Your task to perform on an android device: Search for usb-a to usb-b on target, select the first entry, add it to the cart, then select checkout. Image 0: 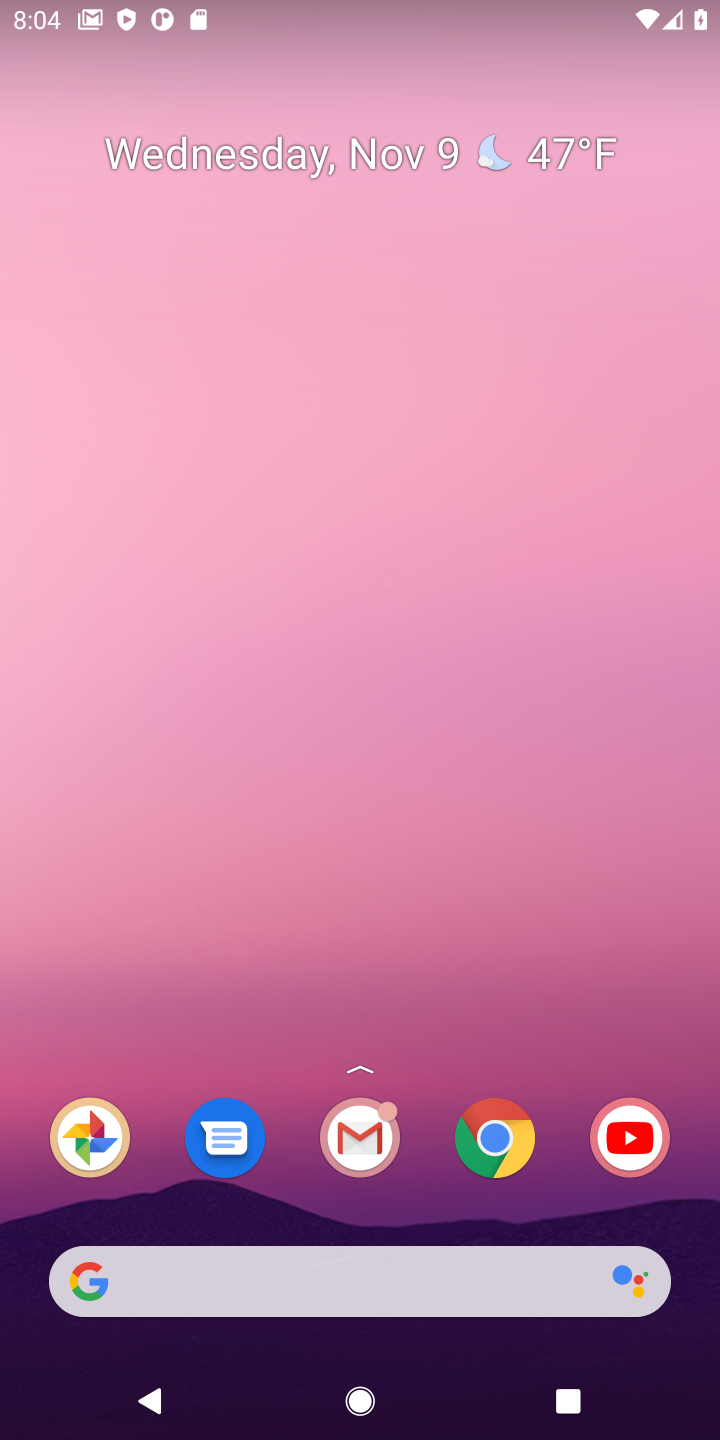
Step 0: drag from (426, 1217) to (498, 132)
Your task to perform on an android device: Search for usb-a to usb-b on target, select the first entry, add it to the cart, then select checkout. Image 1: 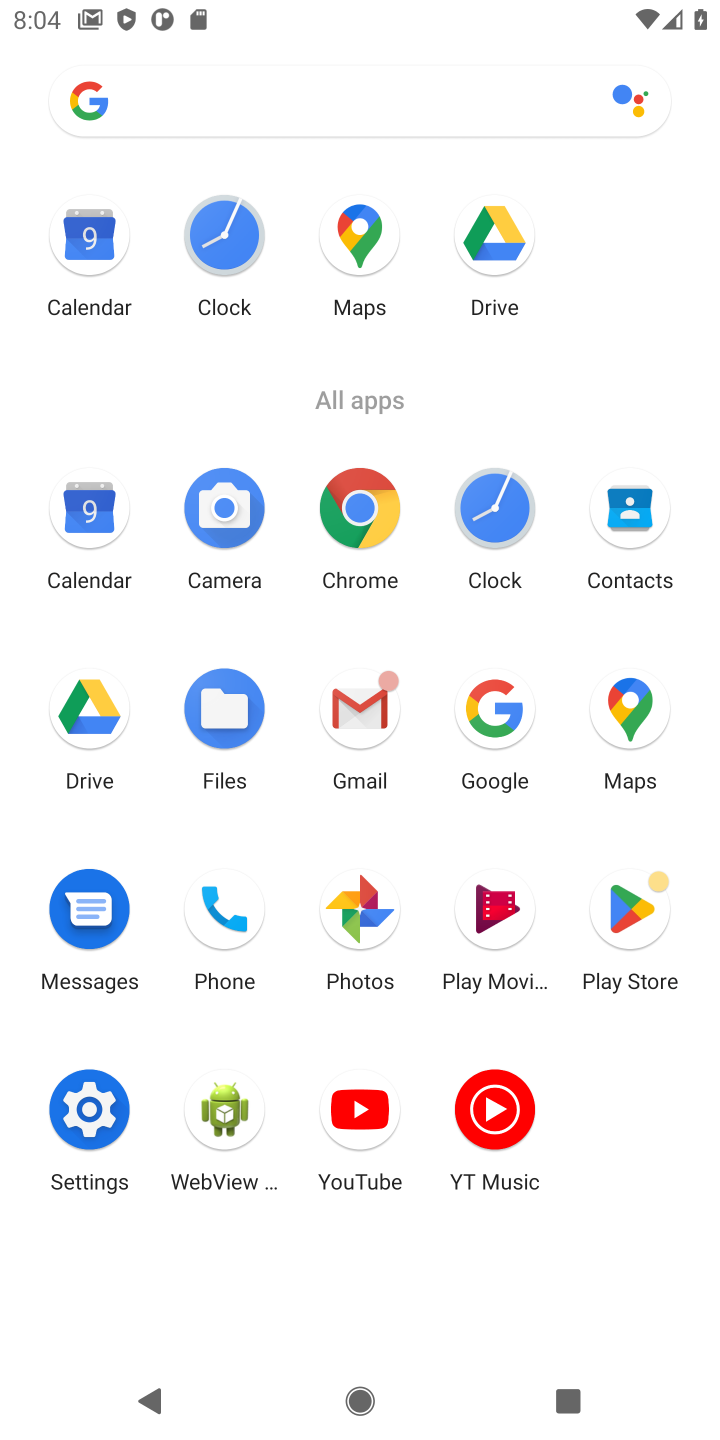
Step 1: click (378, 516)
Your task to perform on an android device: Search for usb-a to usb-b on target, select the first entry, add it to the cart, then select checkout. Image 2: 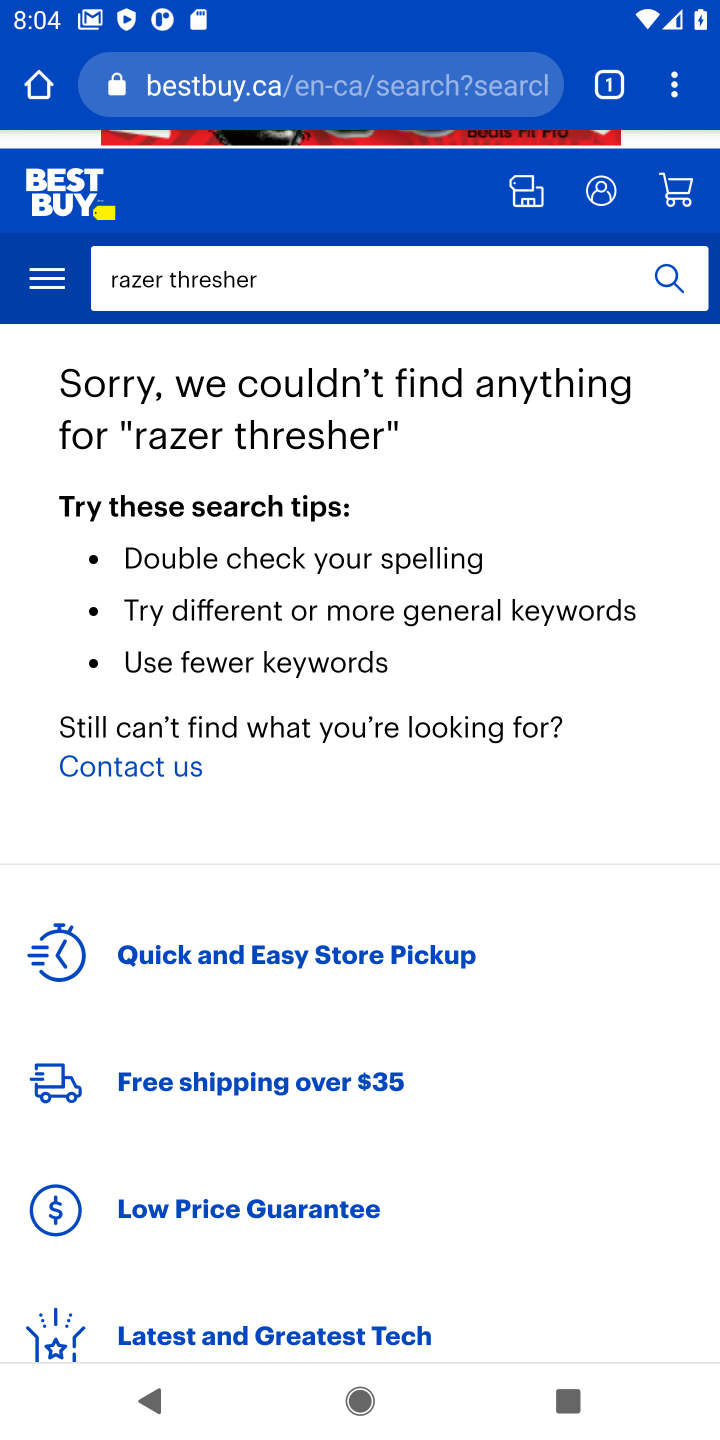
Step 2: click (457, 81)
Your task to perform on an android device: Search for usb-a to usb-b on target, select the first entry, add it to the cart, then select checkout. Image 3: 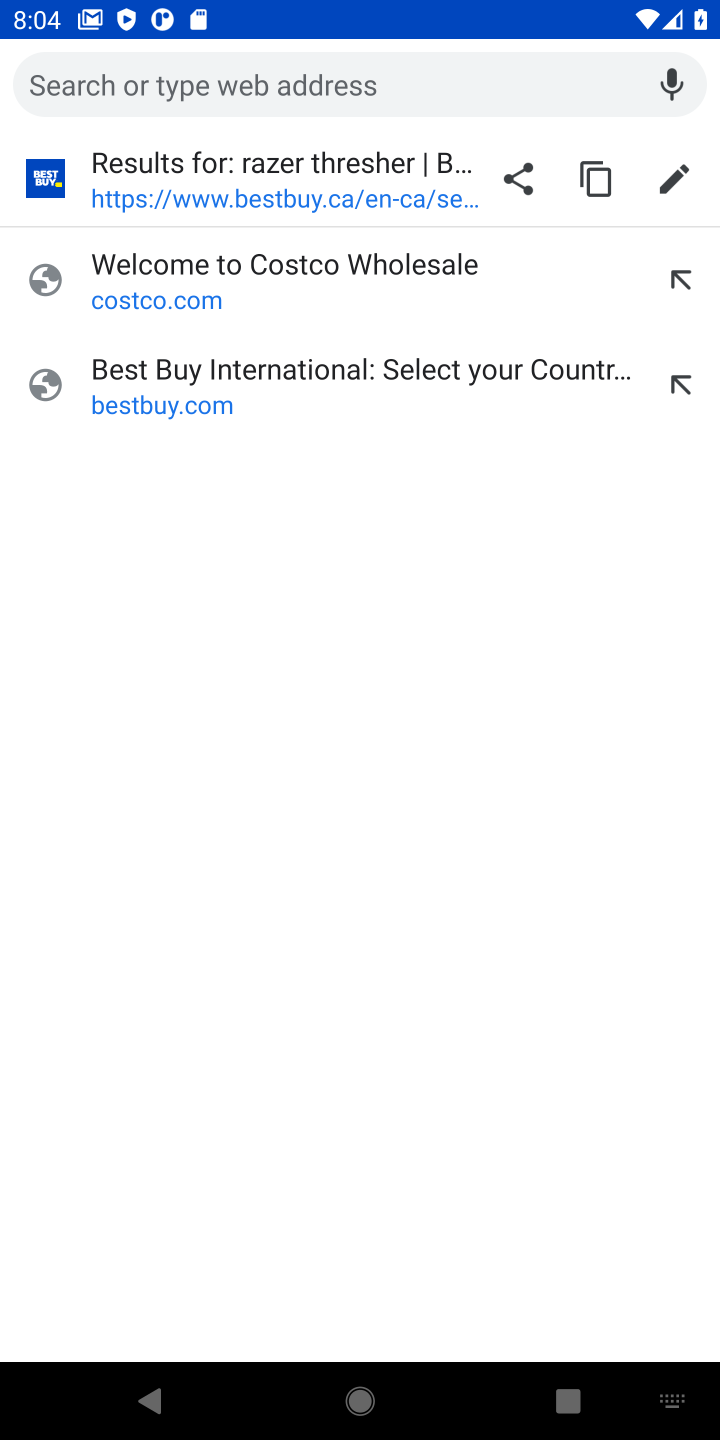
Step 3: type "target.com"
Your task to perform on an android device: Search for usb-a to usb-b on target, select the first entry, add it to the cart, then select checkout. Image 4: 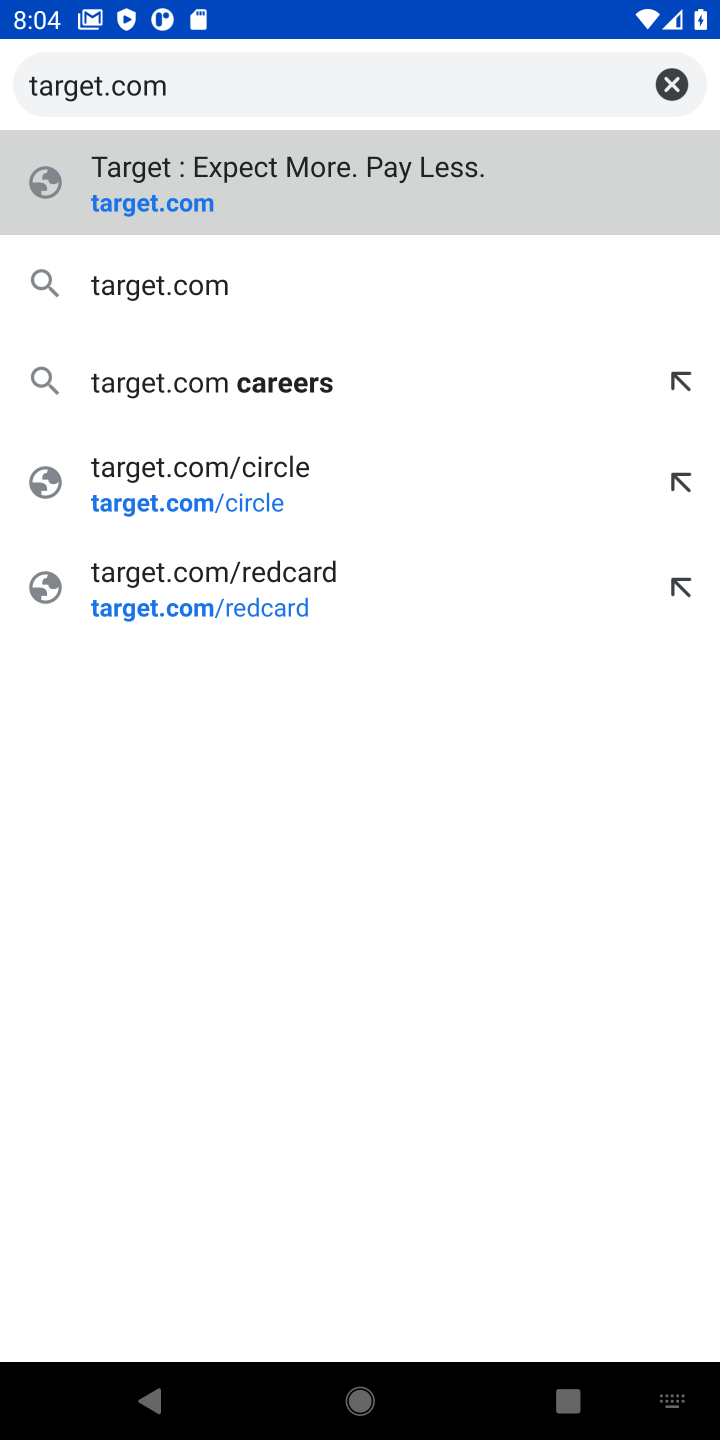
Step 4: press enter
Your task to perform on an android device: Search for usb-a to usb-b on target, select the first entry, add it to the cart, then select checkout. Image 5: 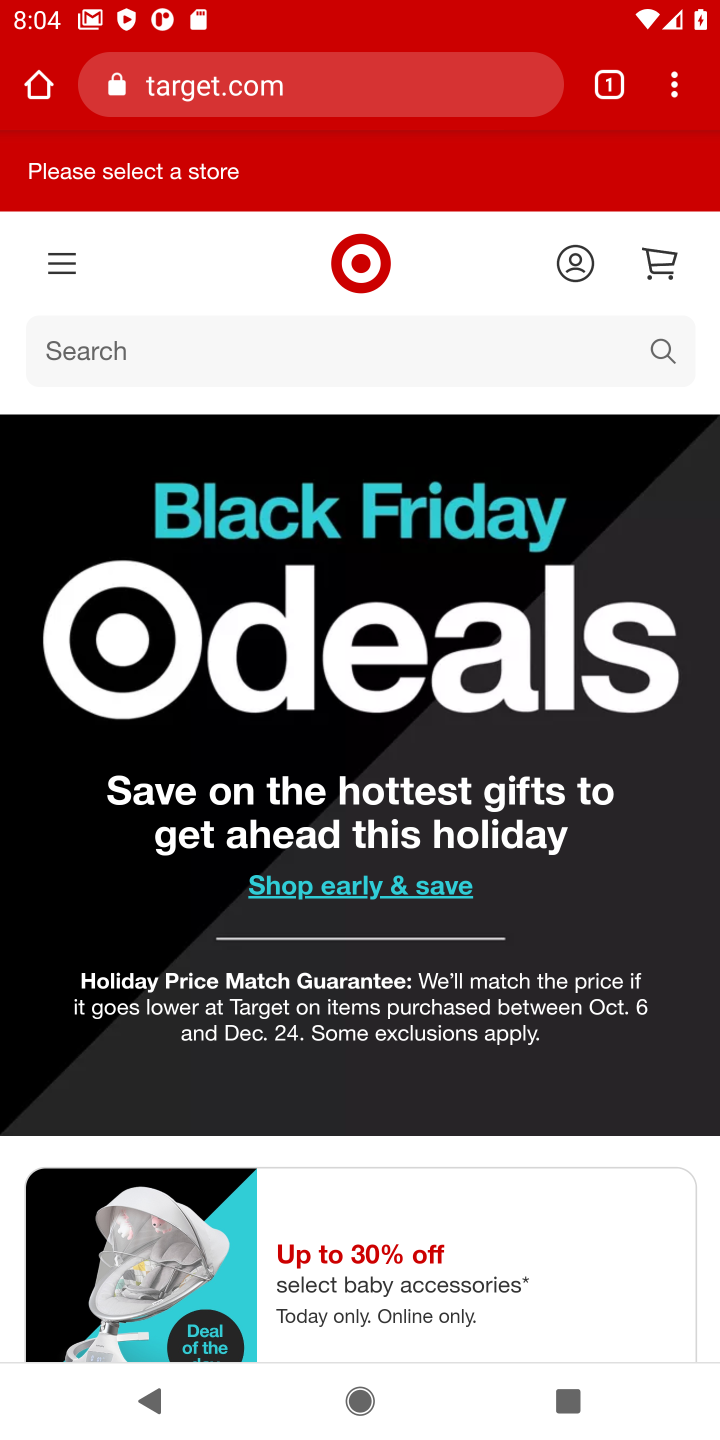
Step 5: click (269, 359)
Your task to perform on an android device: Search for usb-a to usb-b on target, select the first entry, add it to the cart, then select checkout. Image 6: 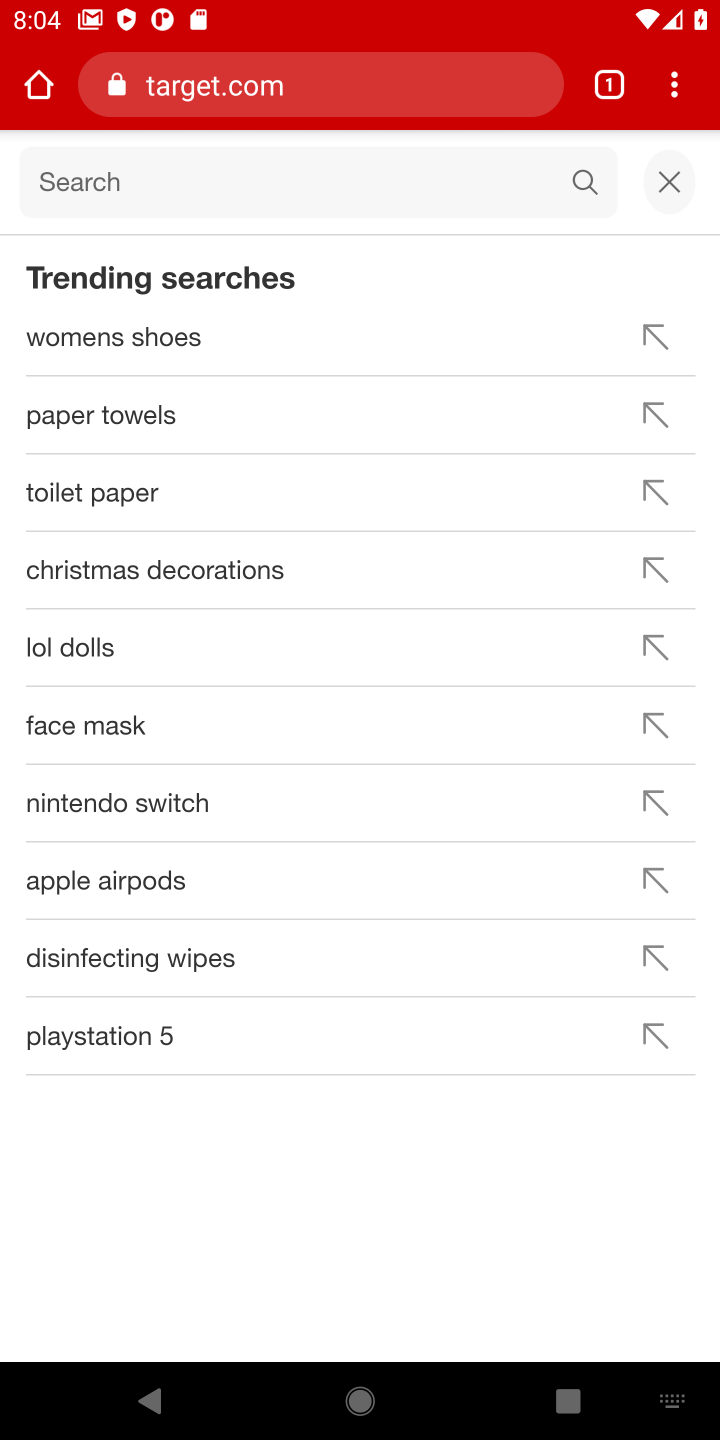
Step 6: type "usb-a to usb-b"
Your task to perform on an android device: Search for usb-a to usb-b on target, select the first entry, add it to the cart, then select checkout. Image 7: 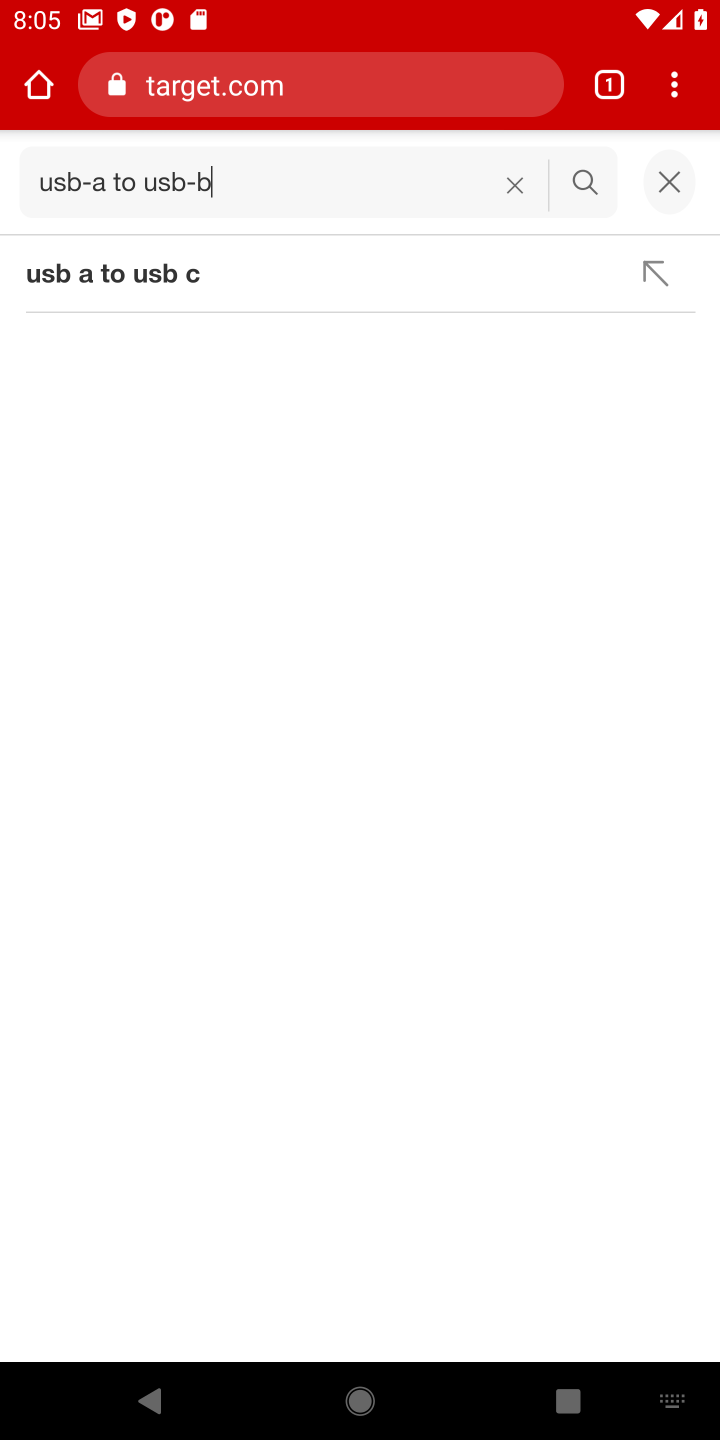
Step 7: press enter
Your task to perform on an android device: Search for usb-a to usb-b on target, select the first entry, add it to the cart, then select checkout. Image 8: 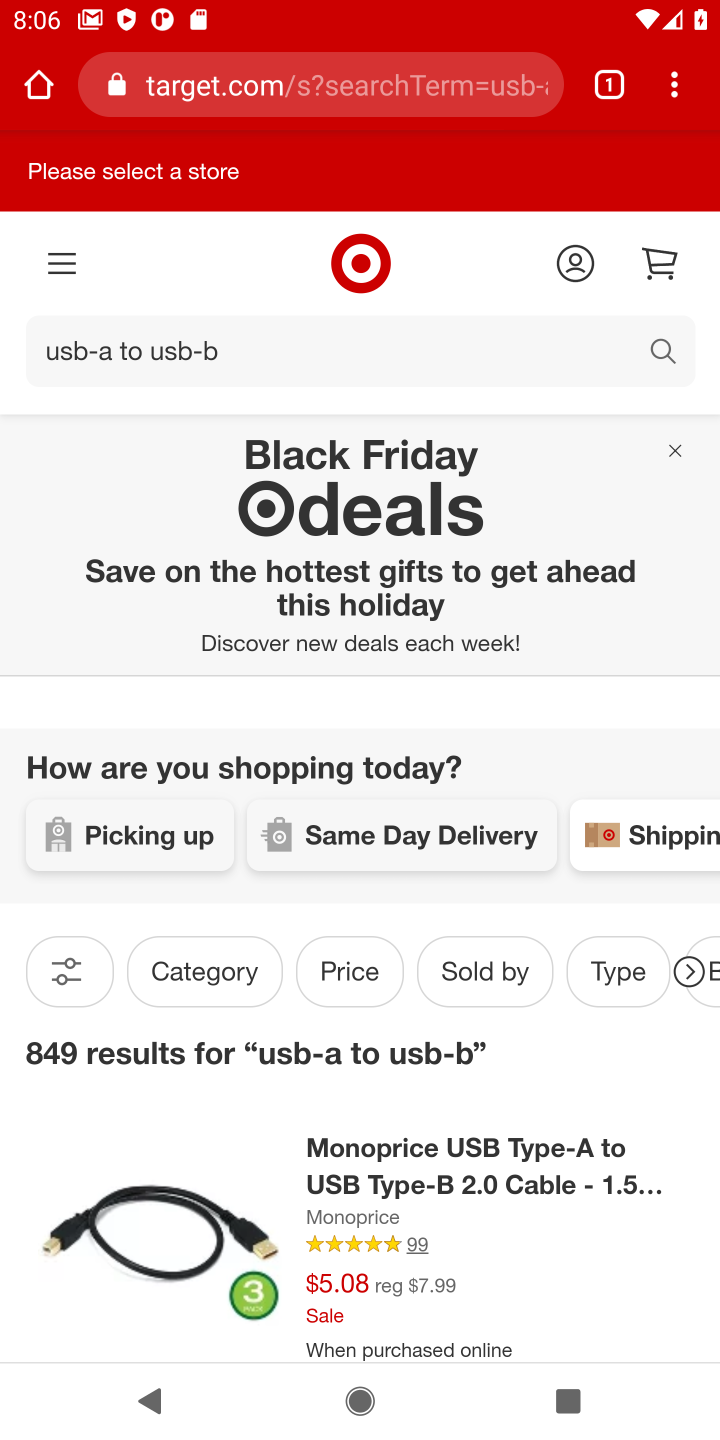
Step 8: drag from (533, 1201) to (517, 579)
Your task to perform on an android device: Search for usb-a to usb-b on target, select the first entry, add it to the cart, then select checkout. Image 9: 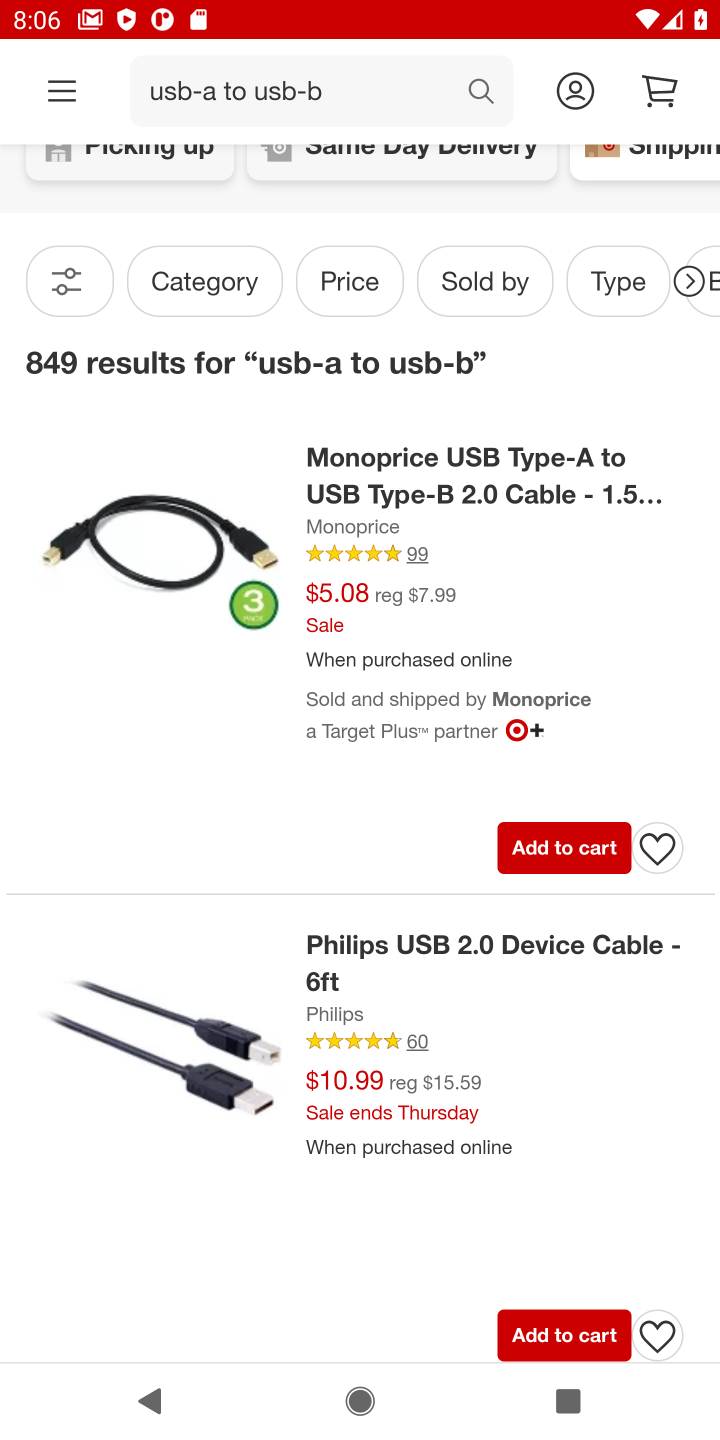
Step 9: click (545, 863)
Your task to perform on an android device: Search for usb-a to usb-b on target, select the first entry, add it to the cart, then select checkout. Image 10: 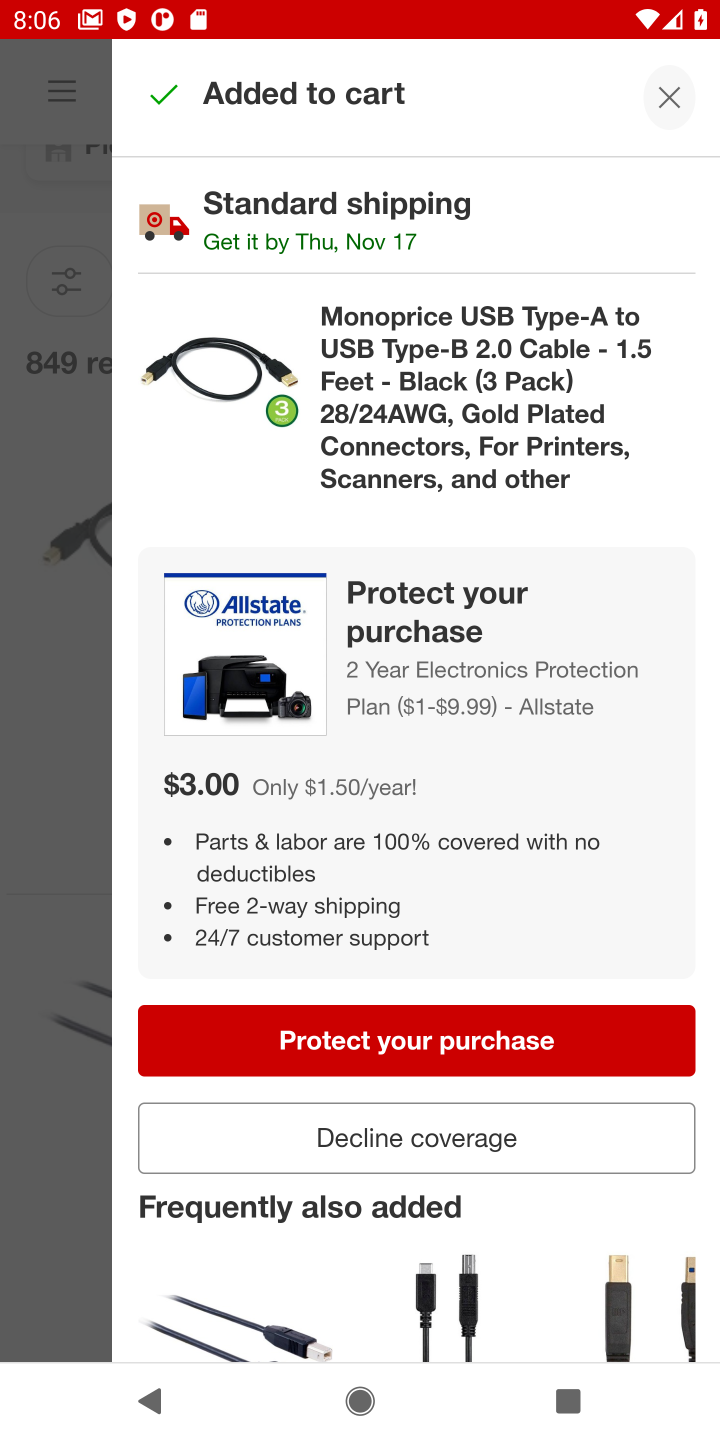
Step 10: click (677, 83)
Your task to perform on an android device: Search for usb-a to usb-b on target, select the first entry, add it to the cart, then select checkout. Image 11: 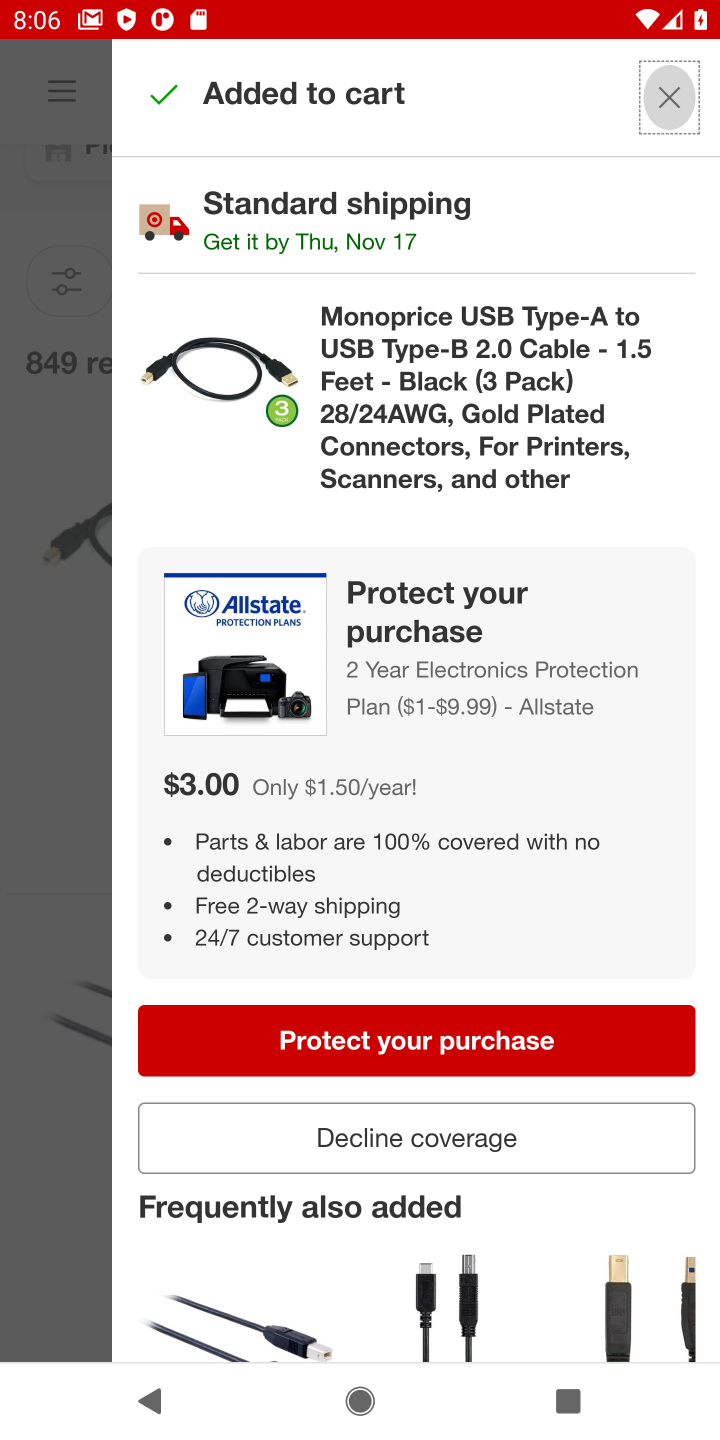
Step 11: click (693, 107)
Your task to perform on an android device: Search for usb-a to usb-b on target, select the first entry, add it to the cart, then select checkout. Image 12: 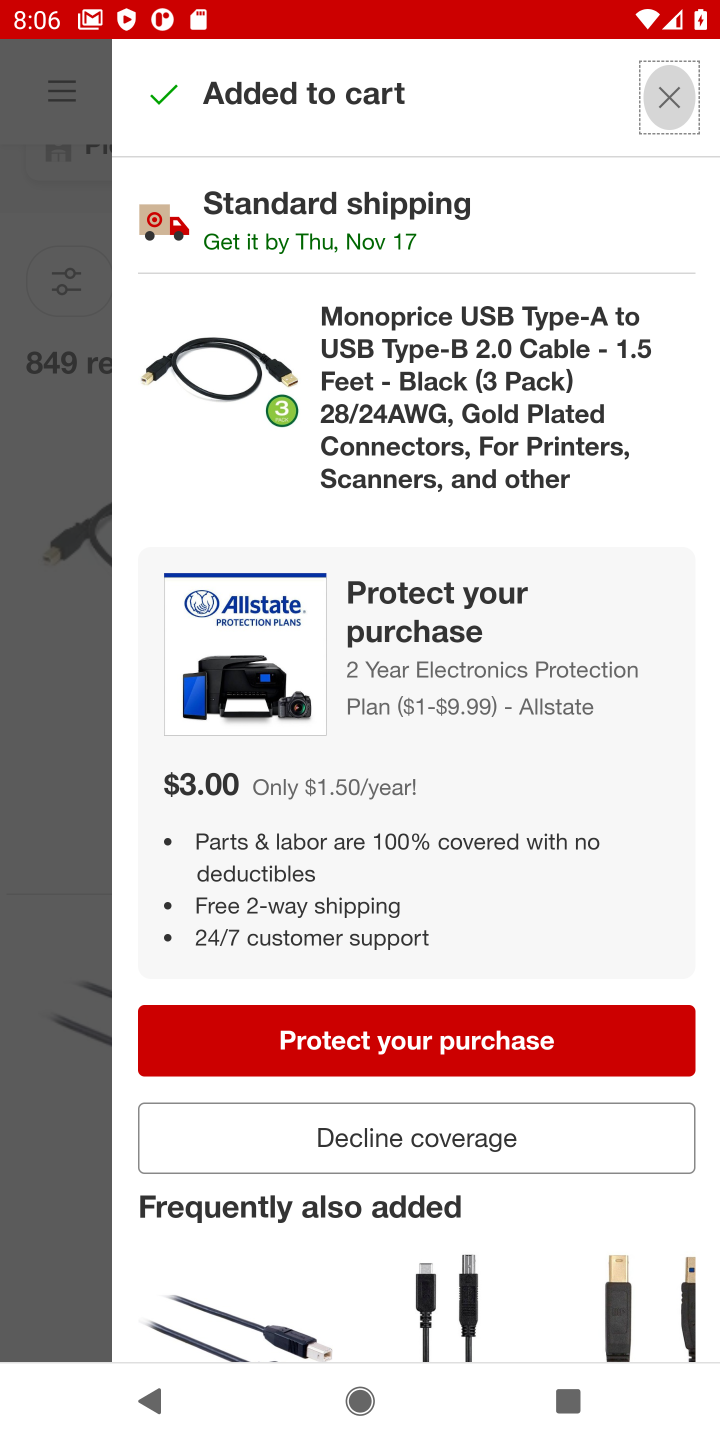
Step 12: click (666, 87)
Your task to perform on an android device: Search for usb-a to usb-b on target, select the first entry, add it to the cart, then select checkout. Image 13: 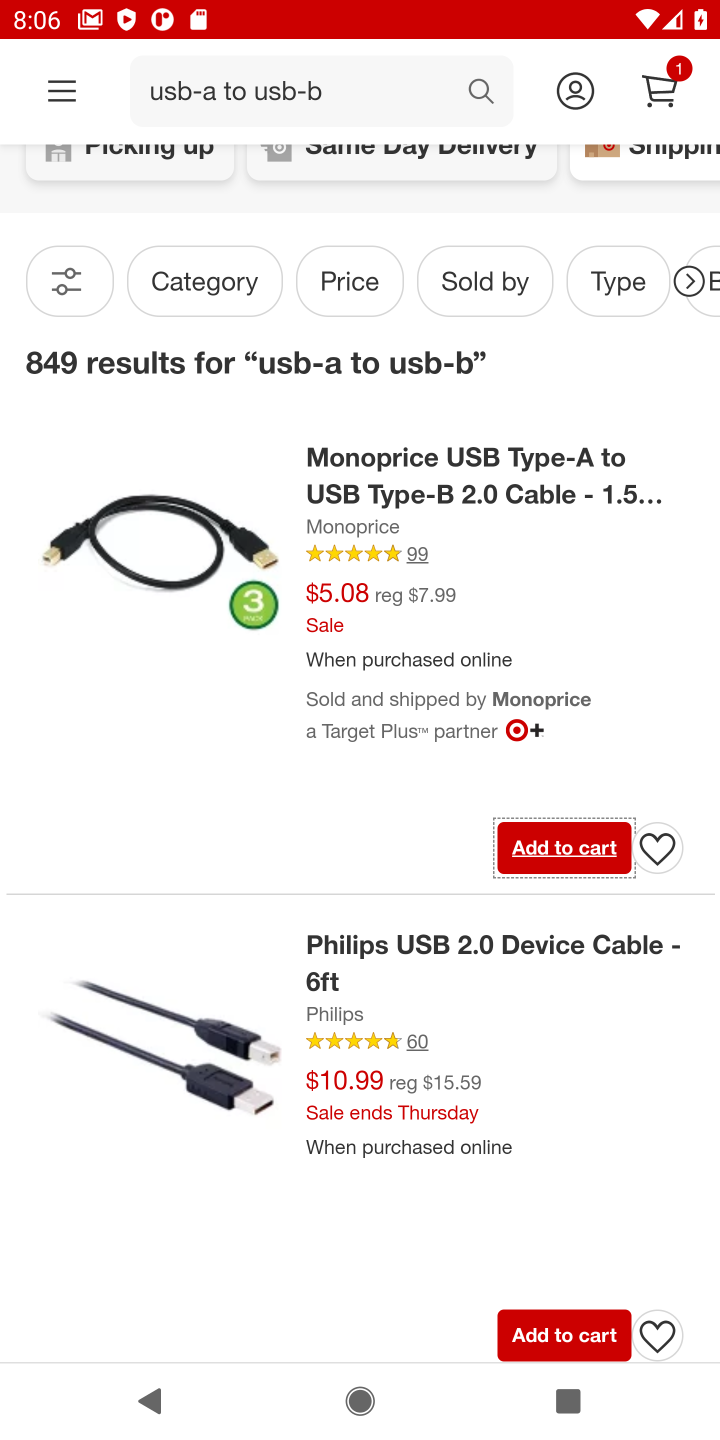
Step 13: click (666, 87)
Your task to perform on an android device: Search for usb-a to usb-b on target, select the first entry, add it to the cart, then select checkout. Image 14: 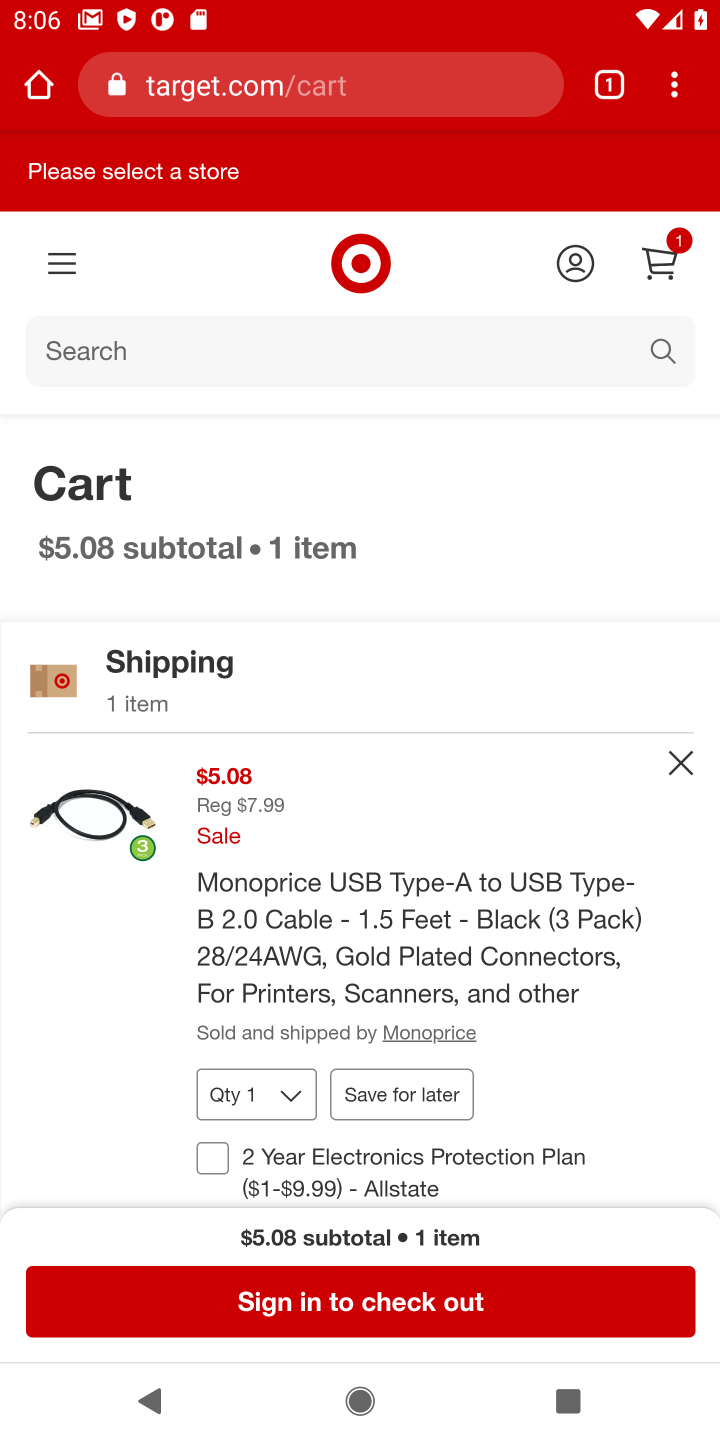
Step 14: click (484, 1279)
Your task to perform on an android device: Search for usb-a to usb-b on target, select the first entry, add it to the cart, then select checkout. Image 15: 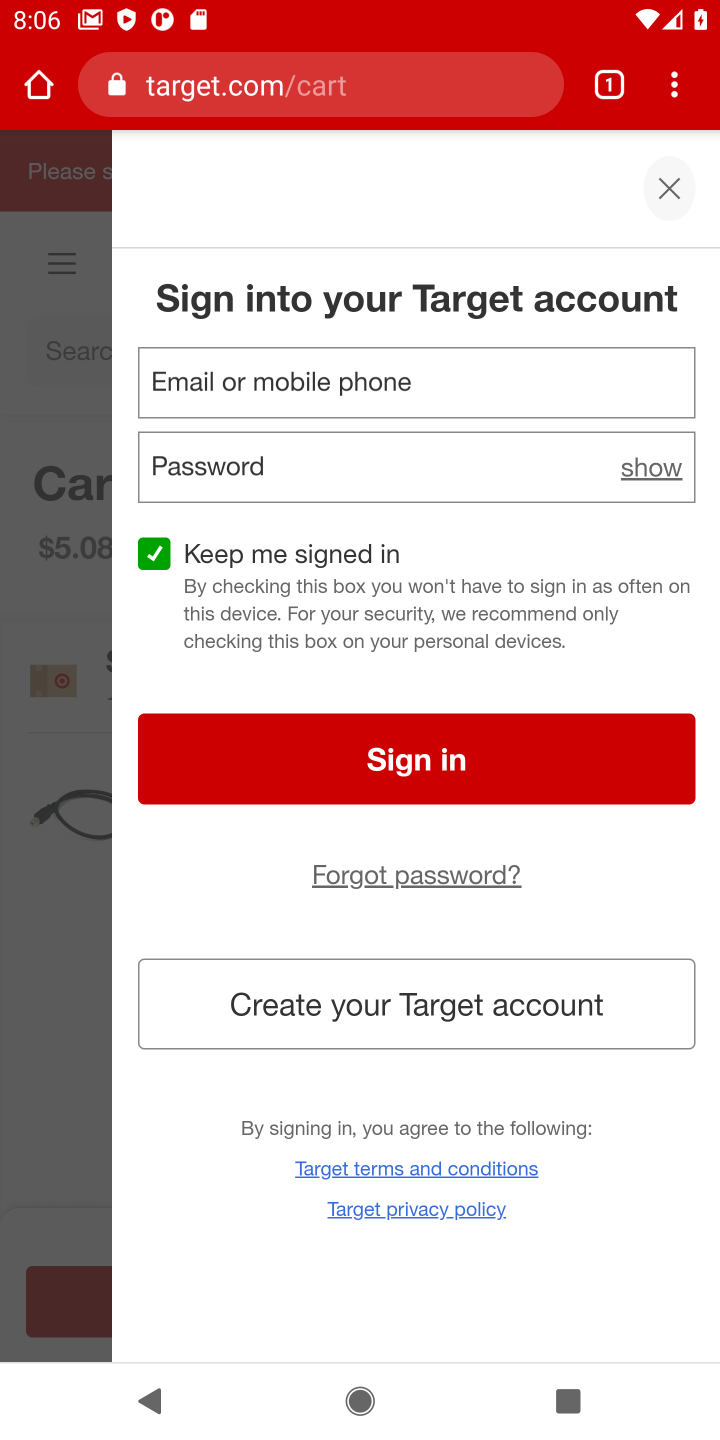
Step 15: task complete